Your task to perform on an android device: turn on priority inbox in the gmail app Image 0: 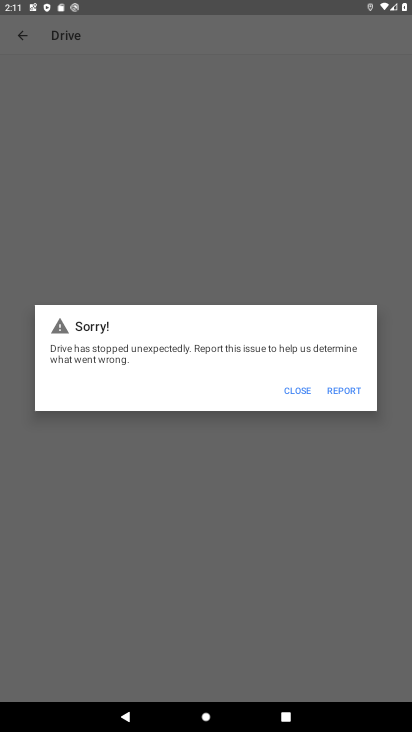
Step 0: press home button
Your task to perform on an android device: turn on priority inbox in the gmail app Image 1: 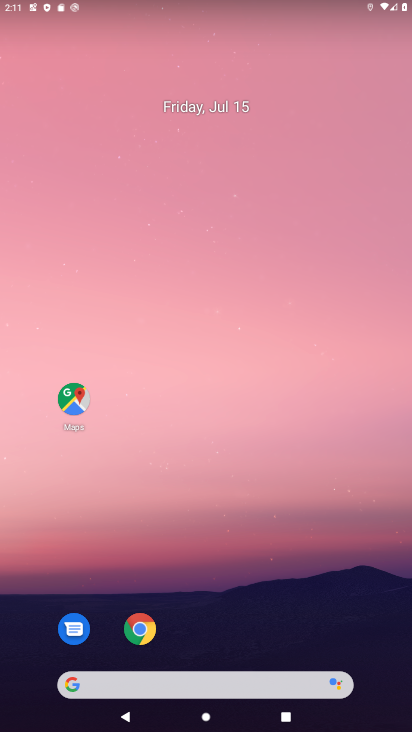
Step 1: drag from (215, 627) to (244, 66)
Your task to perform on an android device: turn on priority inbox in the gmail app Image 2: 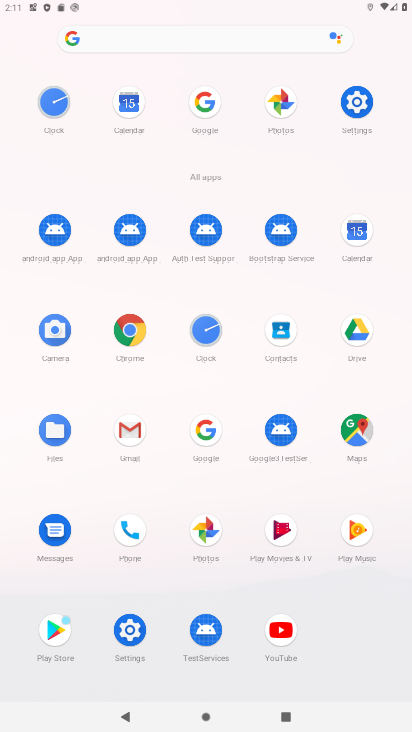
Step 2: click (131, 425)
Your task to perform on an android device: turn on priority inbox in the gmail app Image 3: 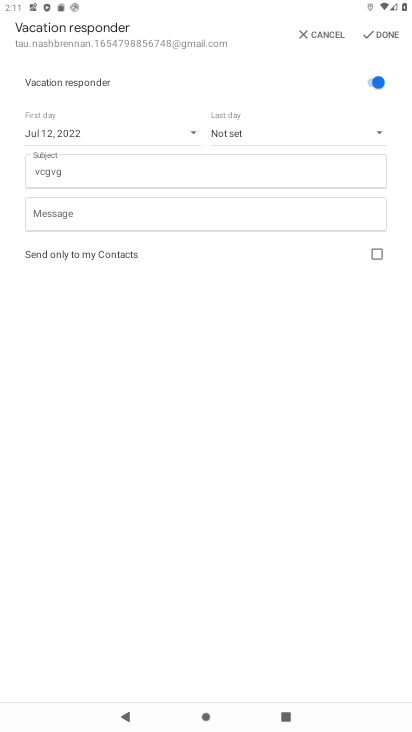
Step 3: click (381, 31)
Your task to perform on an android device: turn on priority inbox in the gmail app Image 4: 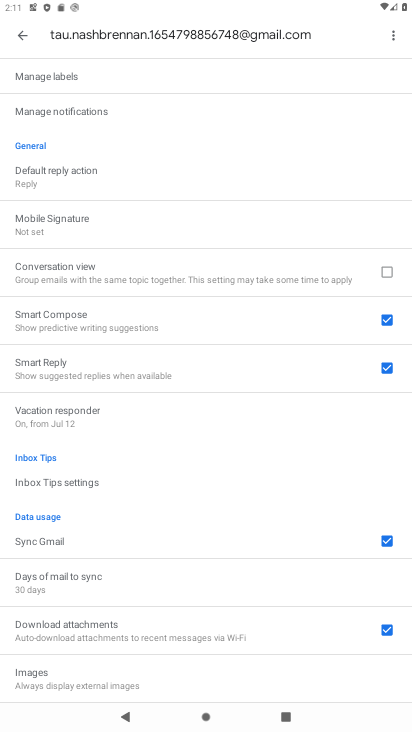
Step 4: press back button
Your task to perform on an android device: turn on priority inbox in the gmail app Image 5: 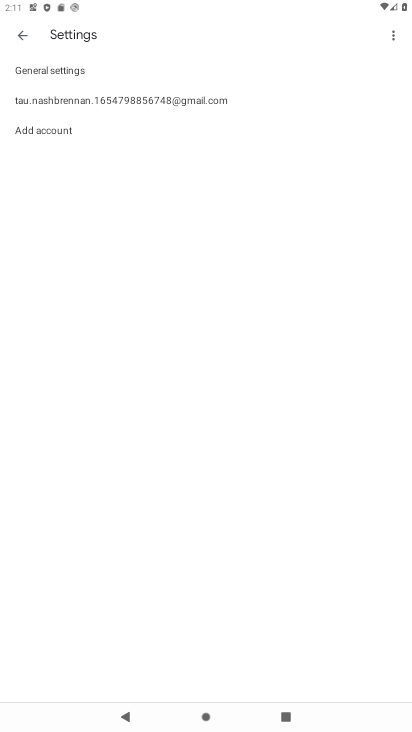
Step 5: click (84, 100)
Your task to perform on an android device: turn on priority inbox in the gmail app Image 6: 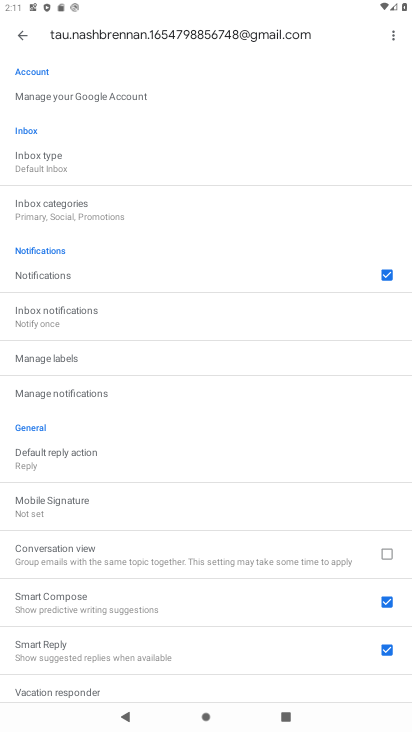
Step 6: click (58, 167)
Your task to perform on an android device: turn on priority inbox in the gmail app Image 7: 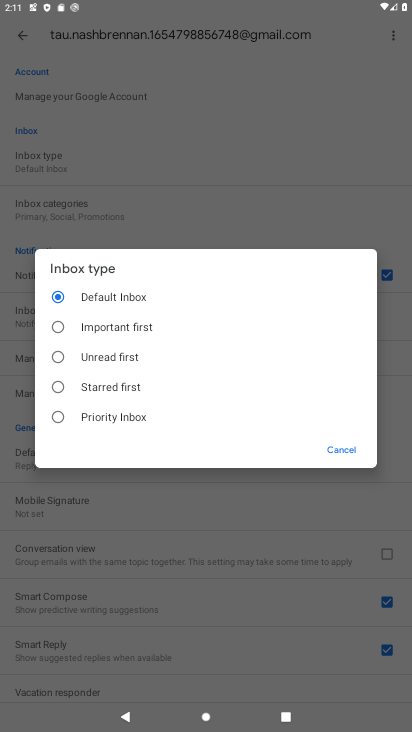
Step 7: click (56, 416)
Your task to perform on an android device: turn on priority inbox in the gmail app Image 8: 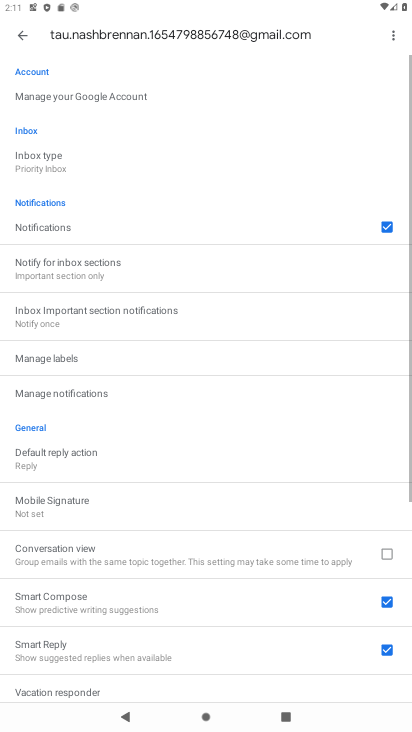
Step 8: task complete